Your task to perform on an android device: visit the assistant section in the google photos Image 0: 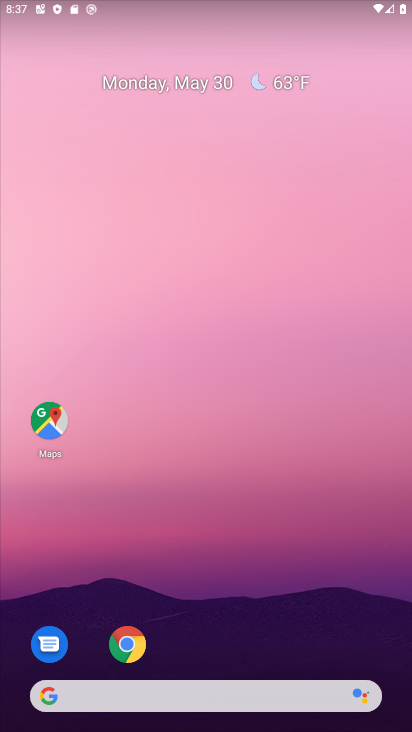
Step 0: drag from (208, 633) to (256, 84)
Your task to perform on an android device: visit the assistant section in the google photos Image 1: 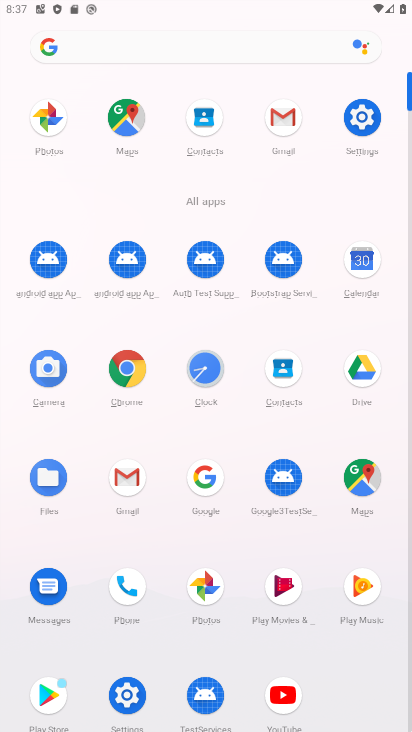
Step 1: click (207, 585)
Your task to perform on an android device: visit the assistant section in the google photos Image 2: 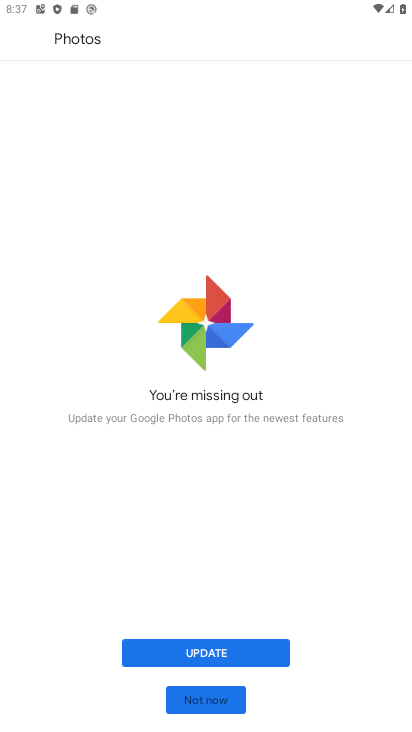
Step 2: click (296, 404)
Your task to perform on an android device: visit the assistant section in the google photos Image 3: 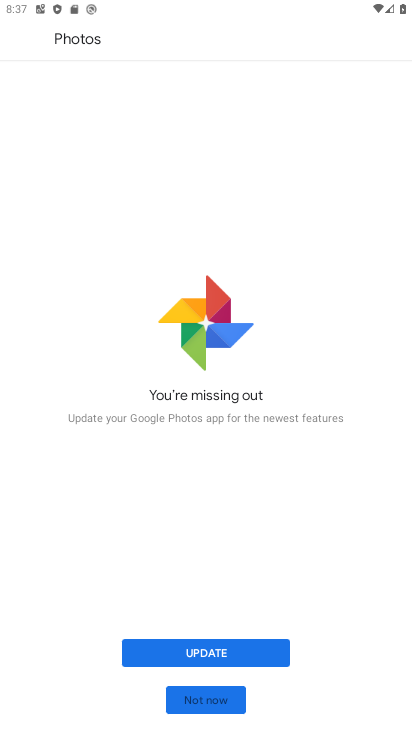
Step 3: click (218, 663)
Your task to perform on an android device: visit the assistant section in the google photos Image 4: 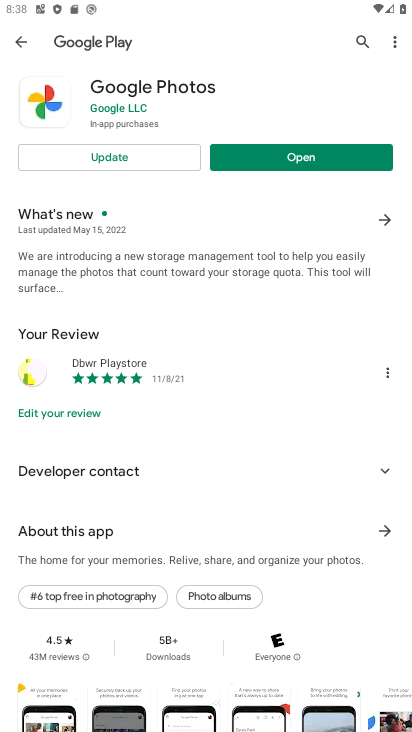
Step 4: click (127, 161)
Your task to perform on an android device: visit the assistant section in the google photos Image 5: 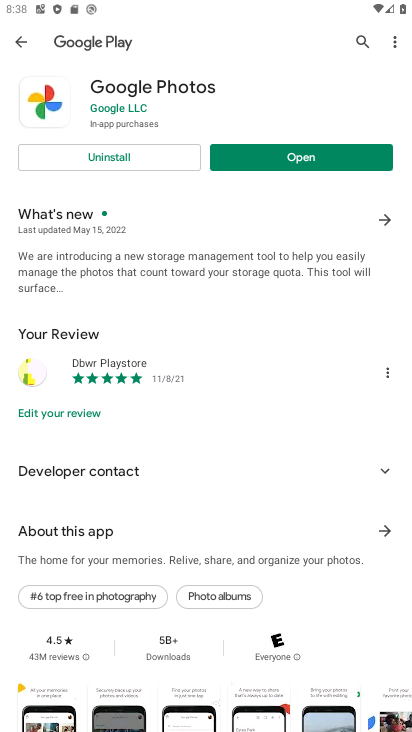
Step 5: click (323, 159)
Your task to perform on an android device: visit the assistant section in the google photos Image 6: 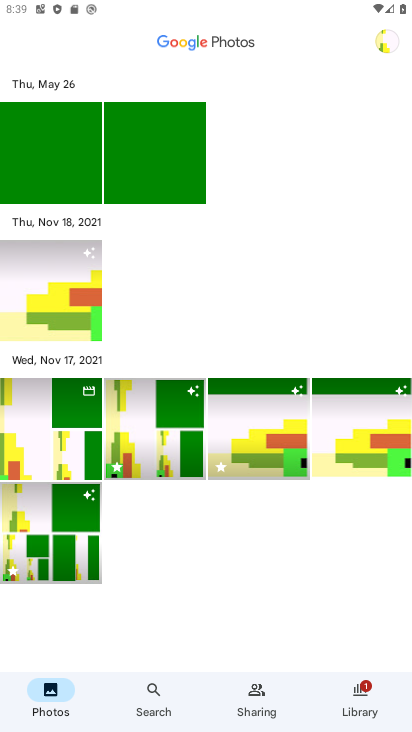
Step 6: task complete